Your task to perform on an android device: Open Yahoo.com Image 0: 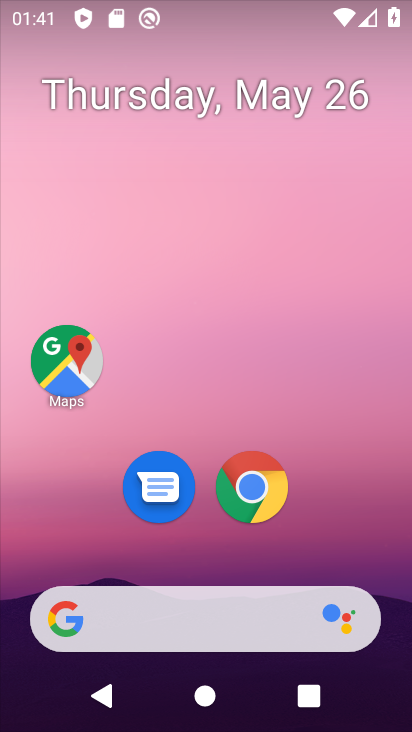
Step 0: drag from (28, 255) to (388, 174)
Your task to perform on an android device: Open Yahoo.com Image 1: 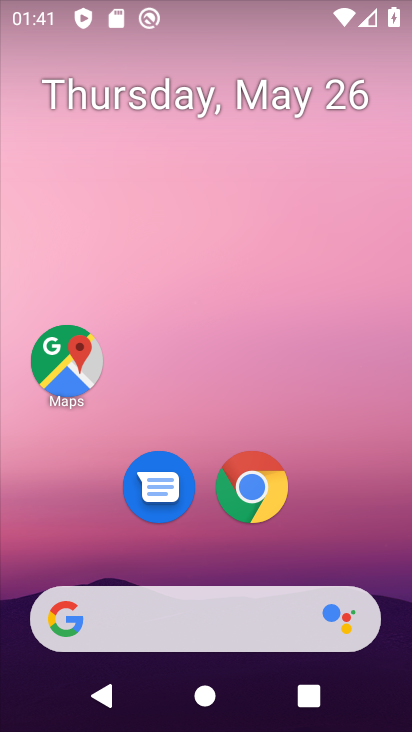
Step 1: drag from (13, 235) to (404, 205)
Your task to perform on an android device: Open Yahoo.com Image 2: 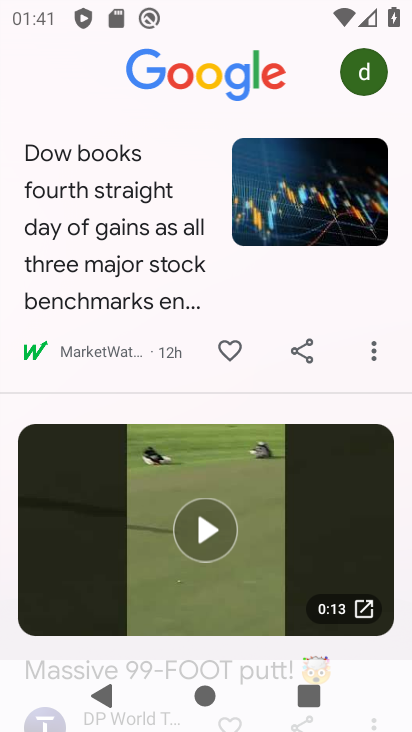
Step 2: press home button
Your task to perform on an android device: Open Yahoo.com Image 3: 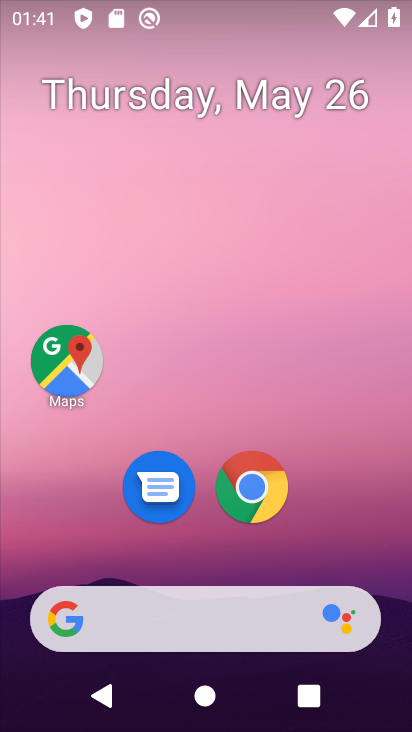
Step 3: click (232, 489)
Your task to perform on an android device: Open Yahoo.com Image 4: 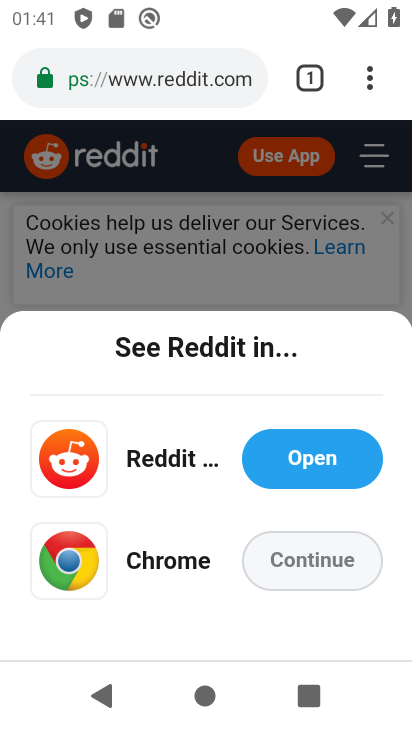
Step 4: click (145, 72)
Your task to perform on an android device: Open Yahoo.com Image 5: 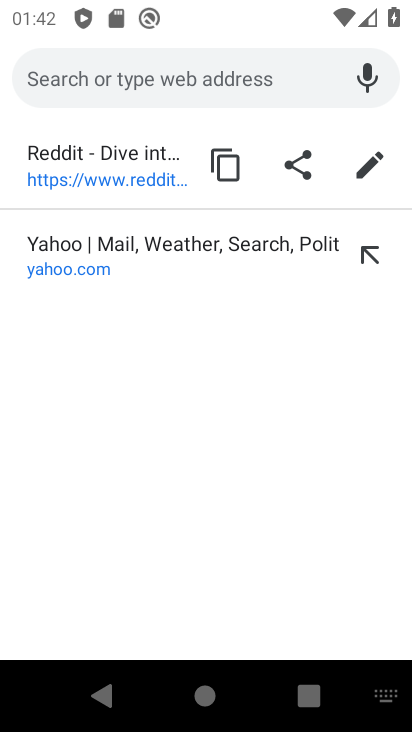
Step 5: type "yahoo.com"
Your task to perform on an android device: Open Yahoo.com Image 6: 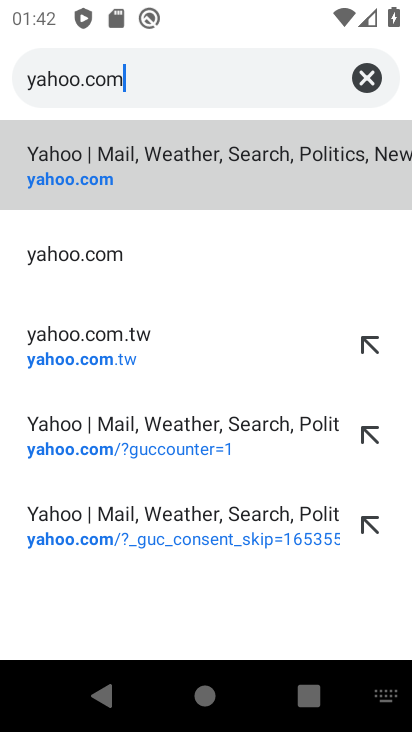
Step 6: click (196, 239)
Your task to perform on an android device: Open Yahoo.com Image 7: 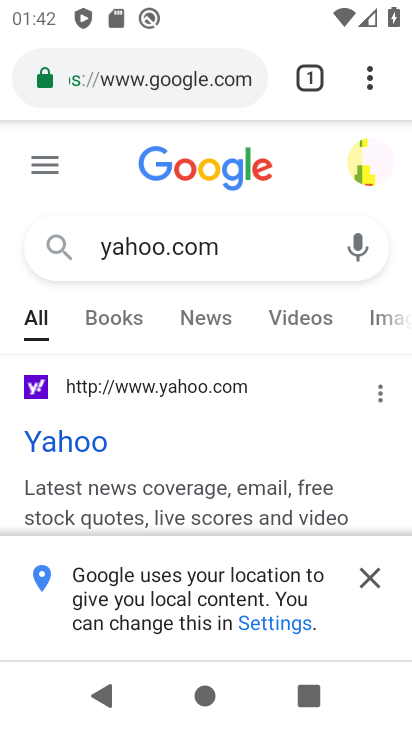
Step 7: task complete